Your task to perform on an android device: uninstall "Google Chrome" Image 0: 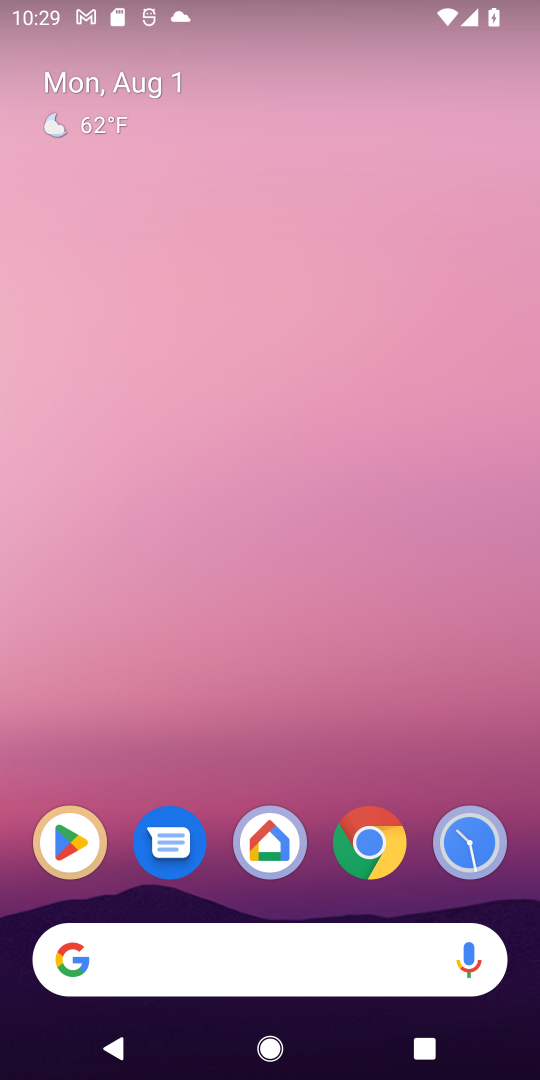
Step 0: click (366, 829)
Your task to perform on an android device: uninstall "Google Chrome" Image 1: 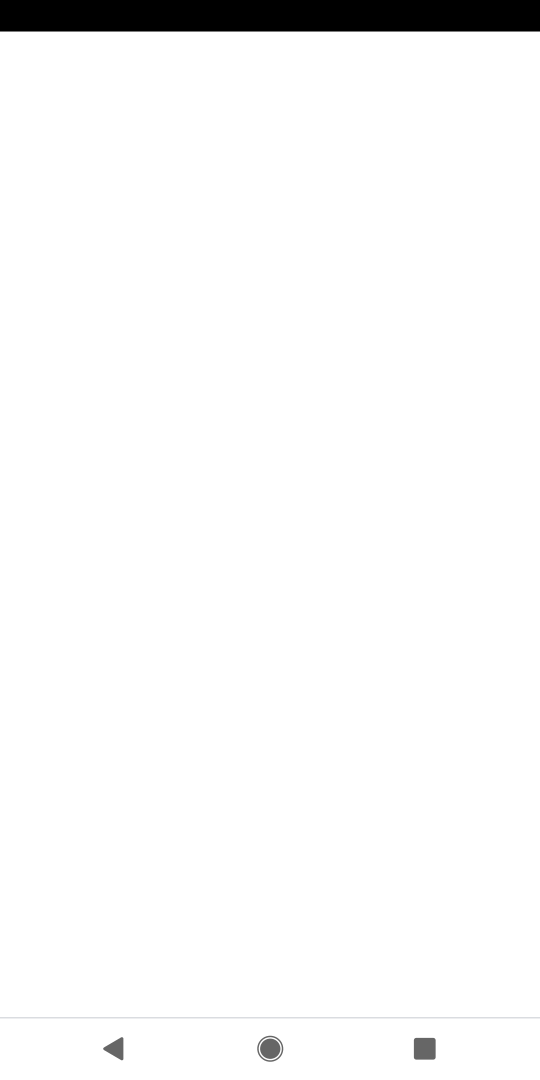
Step 1: press back button
Your task to perform on an android device: uninstall "Google Chrome" Image 2: 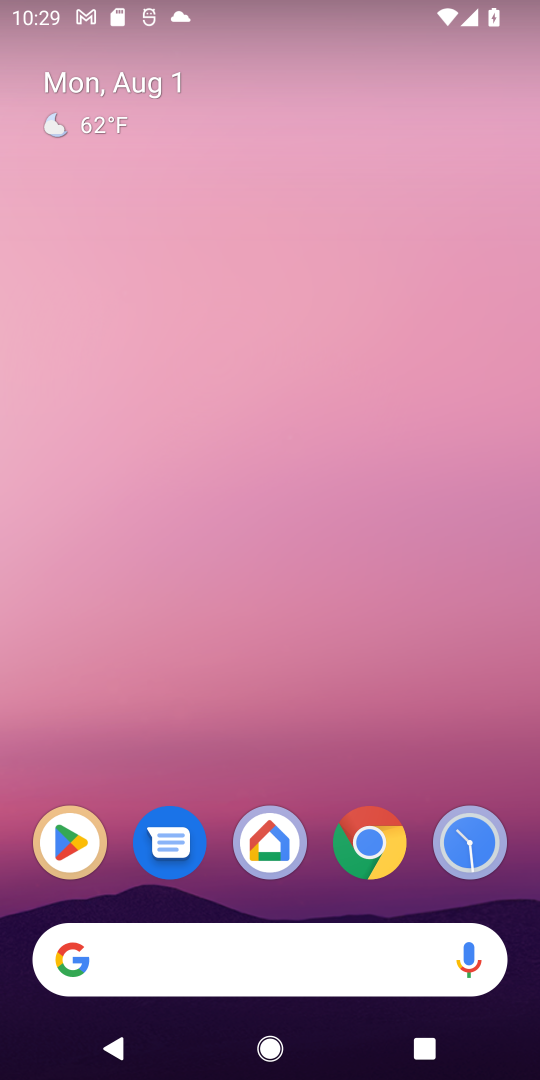
Step 2: press home button
Your task to perform on an android device: uninstall "Google Chrome" Image 3: 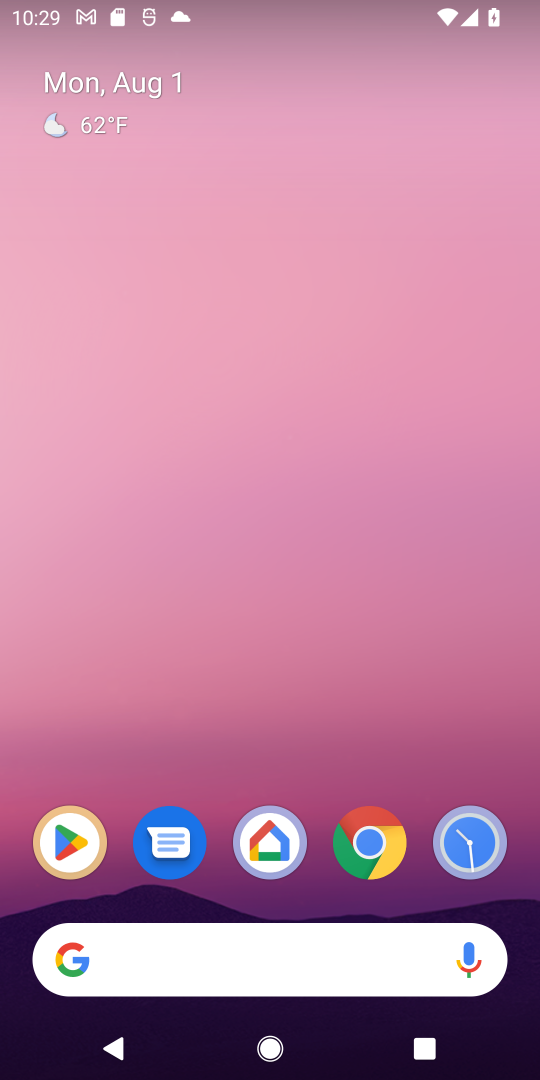
Step 3: click (376, 875)
Your task to perform on an android device: uninstall "Google Chrome" Image 4: 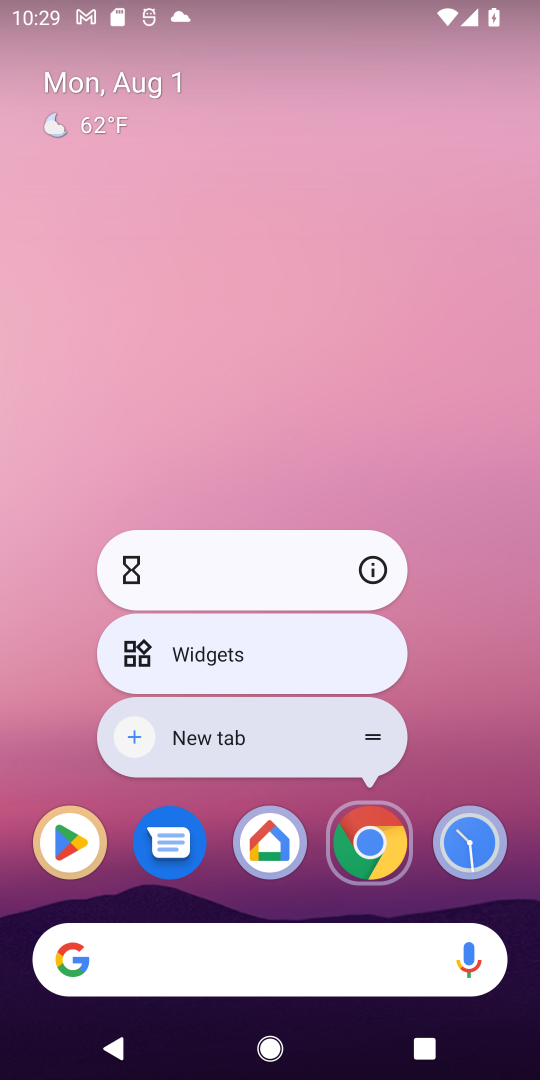
Step 4: click (382, 570)
Your task to perform on an android device: uninstall "Google Chrome" Image 5: 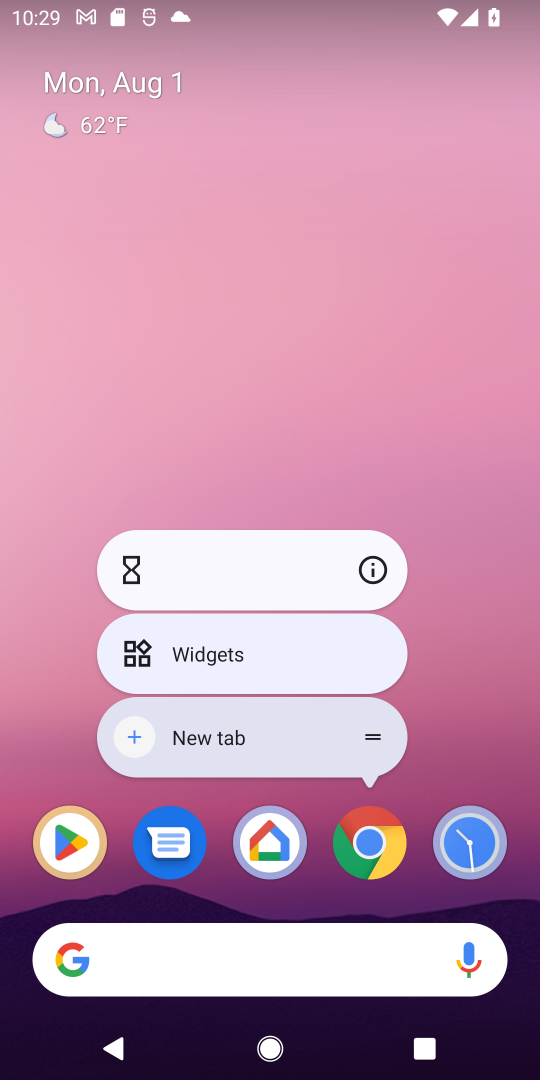
Step 5: click (364, 574)
Your task to perform on an android device: uninstall "Google Chrome" Image 6: 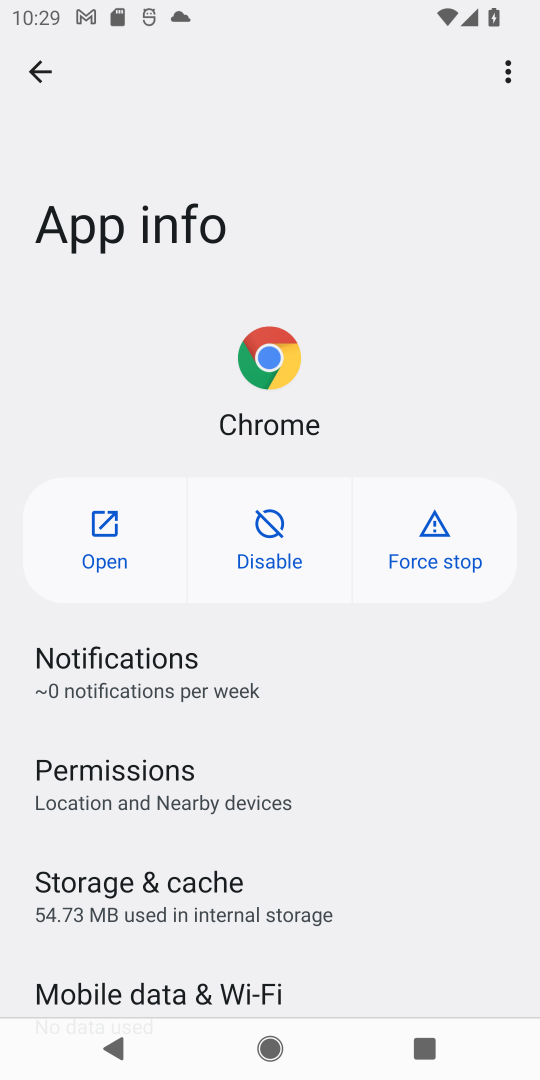
Step 6: task complete